Your task to perform on an android device: delete browsing data in the chrome app Image 0: 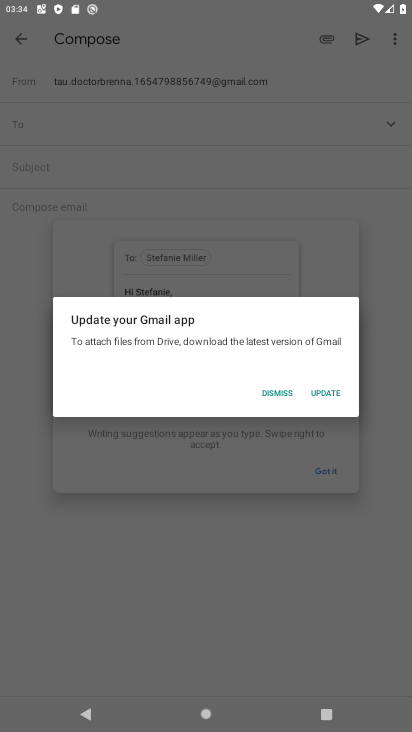
Step 0: press home button
Your task to perform on an android device: delete browsing data in the chrome app Image 1: 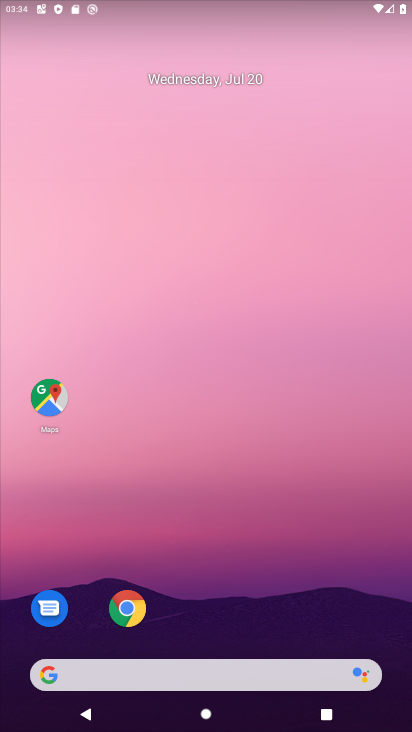
Step 1: click (120, 599)
Your task to perform on an android device: delete browsing data in the chrome app Image 2: 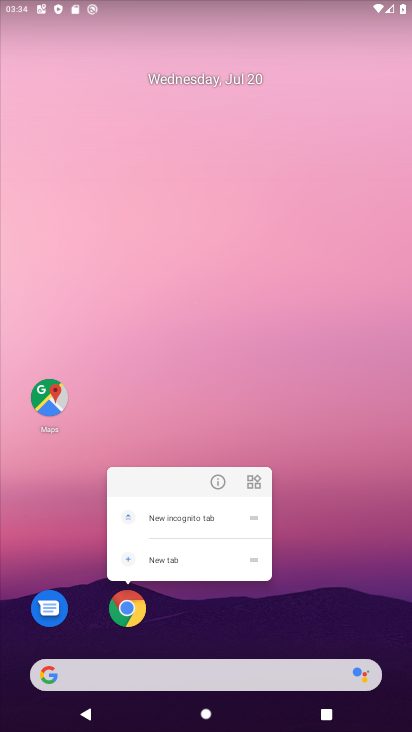
Step 2: click (124, 608)
Your task to perform on an android device: delete browsing data in the chrome app Image 3: 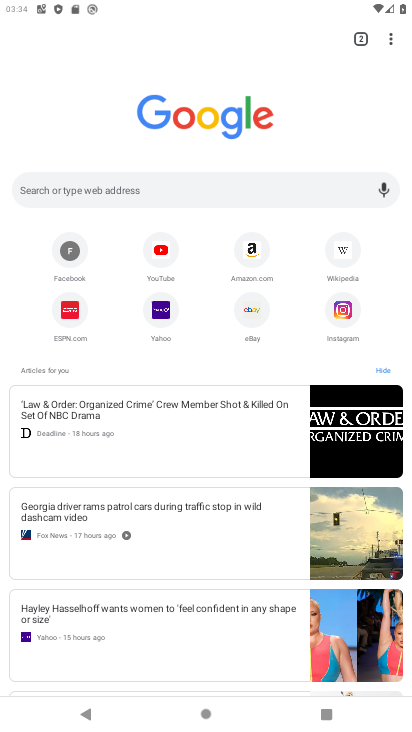
Step 3: click (388, 34)
Your task to perform on an android device: delete browsing data in the chrome app Image 4: 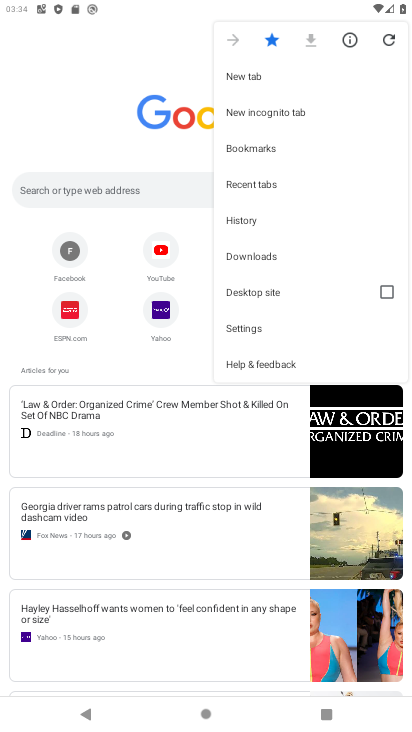
Step 4: click (245, 213)
Your task to perform on an android device: delete browsing data in the chrome app Image 5: 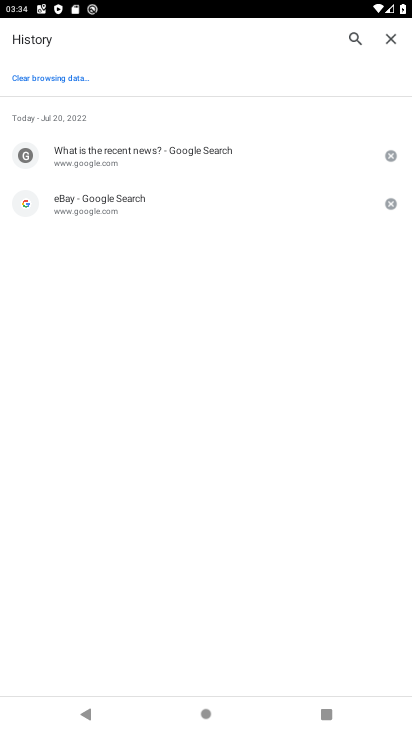
Step 5: click (79, 75)
Your task to perform on an android device: delete browsing data in the chrome app Image 6: 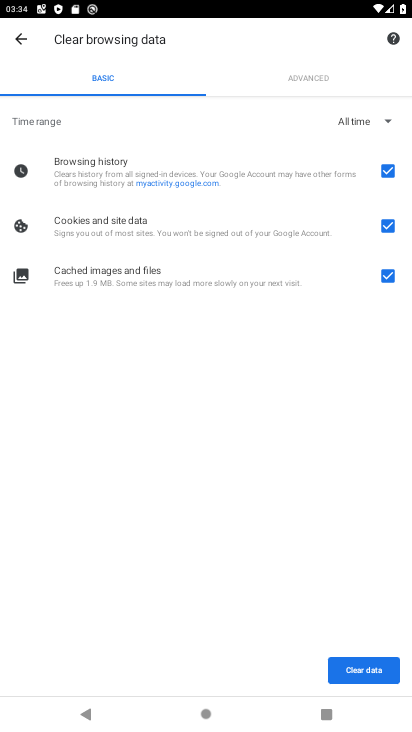
Step 6: click (346, 666)
Your task to perform on an android device: delete browsing data in the chrome app Image 7: 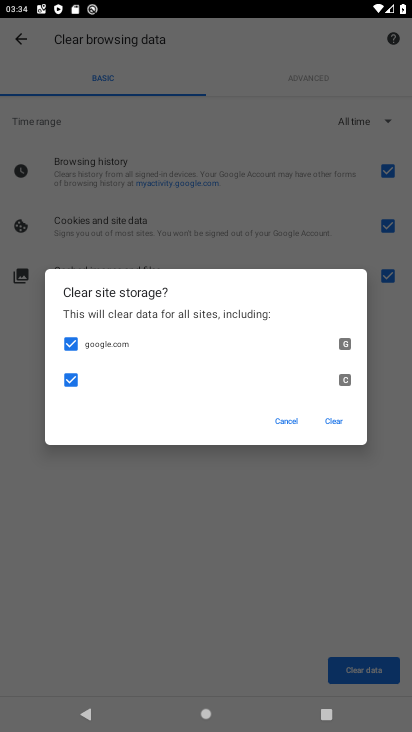
Step 7: click (328, 417)
Your task to perform on an android device: delete browsing data in the chrome app Image 8: 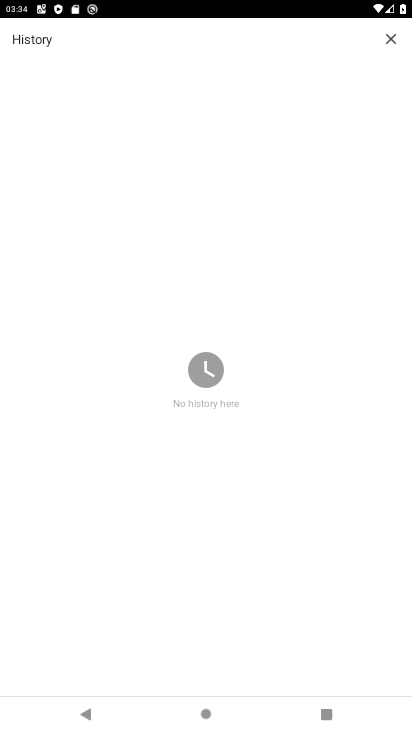
Step 8: task complete